Your task to perform on an android device: Go to Google maps Image 0: 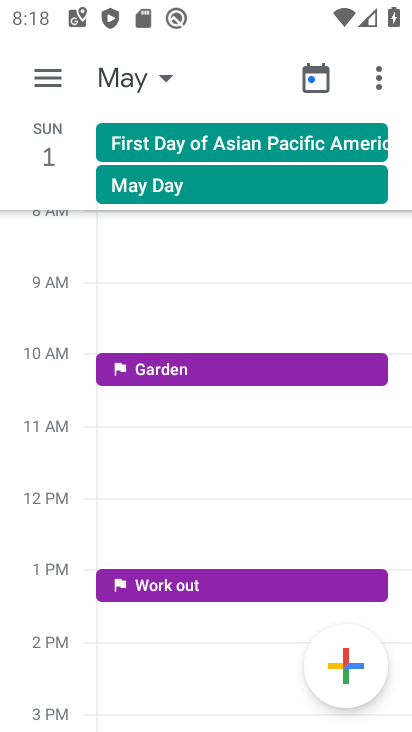
Step 0: press home button
Your task to perform on an android device: Go to Google maps Image 1: 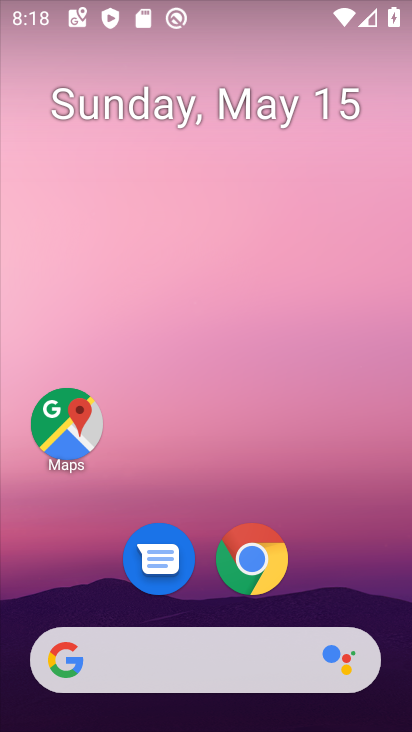
Step 1: click (83, 427)
Your task to perform on an android device: Go to Google maps Image 2: 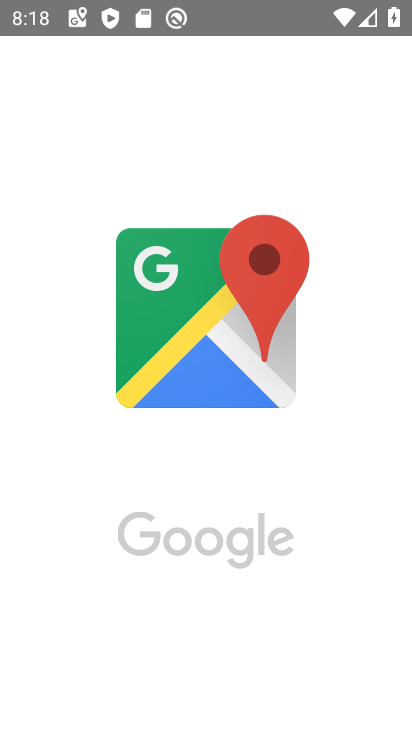
Step 2: task complete